Your task to perform on an android device: see sites visited before in the chrome app Image 0: 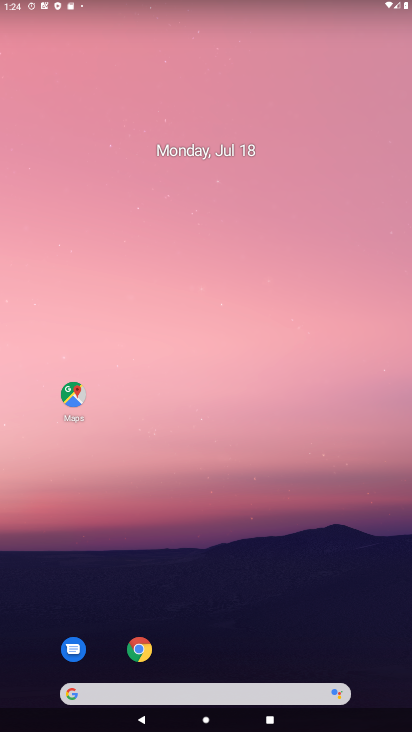
Step 0: click (150, 634)
Your task to perform on an android device: see sites visited before in the chrome app Image 1: 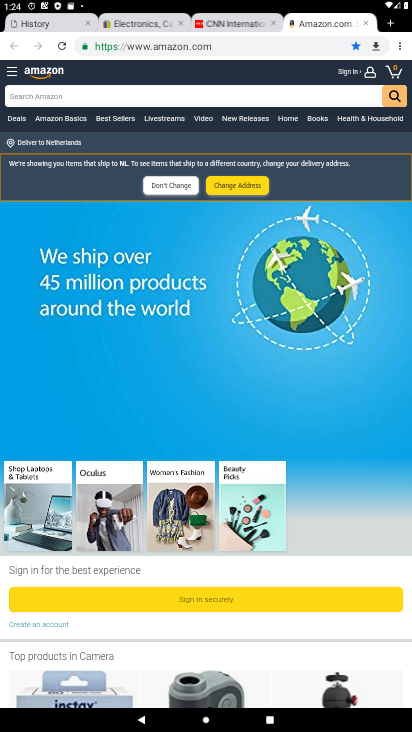
Step 1: click (246, 24)
Your task to perform on an android device: see sites visited before in the chrome app Image 2: 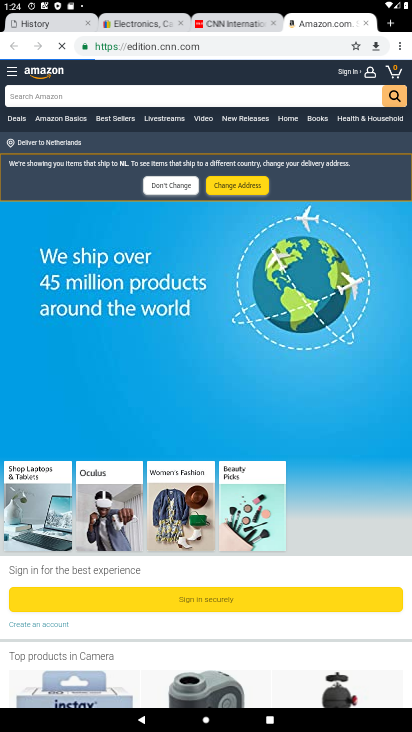
Step 2: click (146, 26)
Your task to perform on an android device: see sites visited before in the chrome app Image 3: 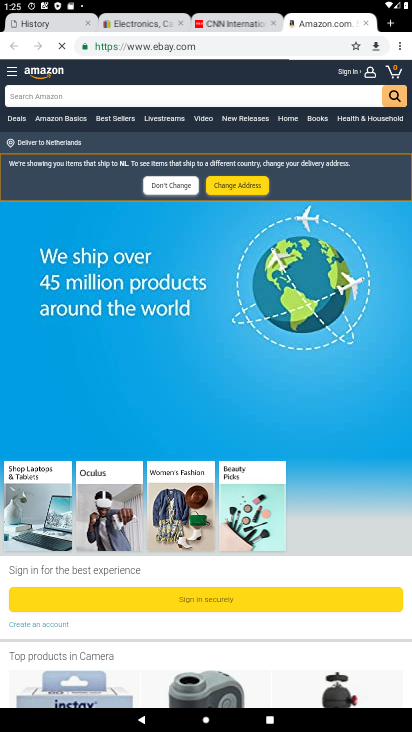
Step 3: click (210, 23)
Your task to perform on an android device: see sites visited before in the chrome app Image 4: 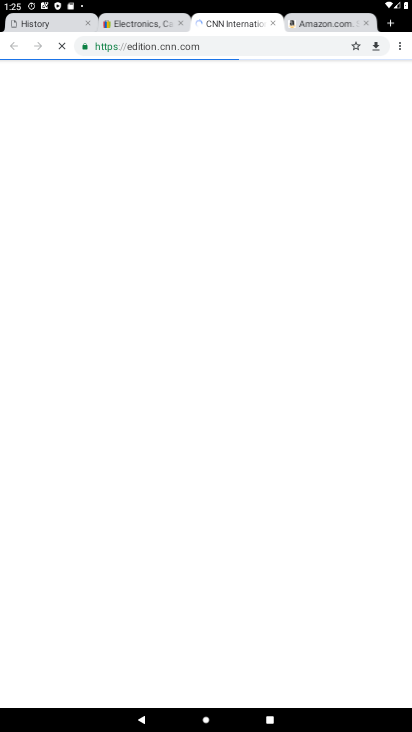
Step 4: click (210, 23)
Your task to perform on an android device: see sites visited before in the chrome app Image 5: 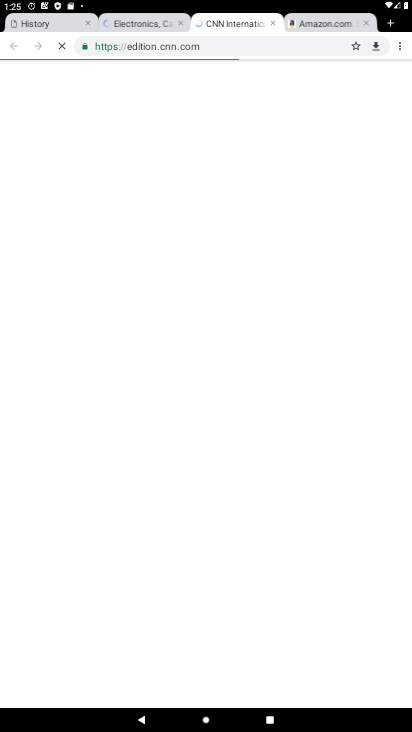
Step 5: click (141, 26)
Your task to perform on an android device: see sites visited before in the chrome app Image 6: 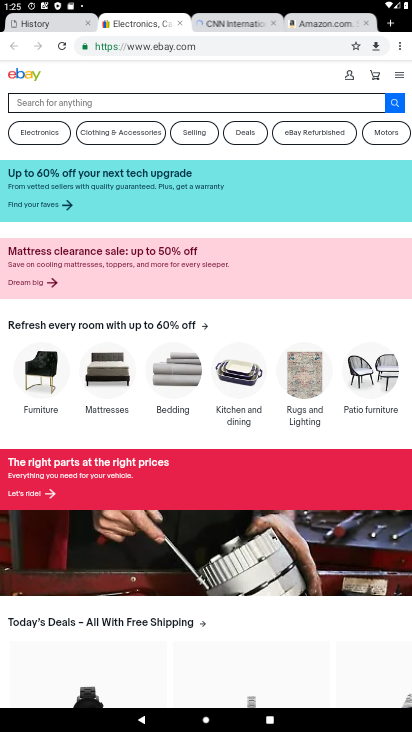
Step 6: click (141, 26)
Your task to perform on an android device: see sites visited before in the chrome app Image 7: 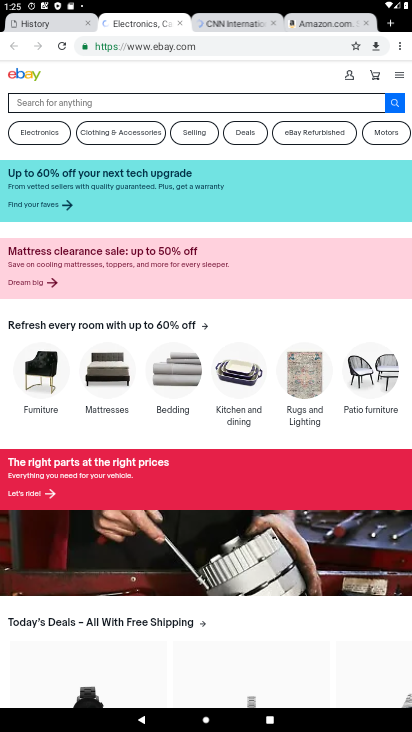
Step 7: click (36, 23)
Your task to perform on an android device: see sites visited before in the chrome app Image 8: 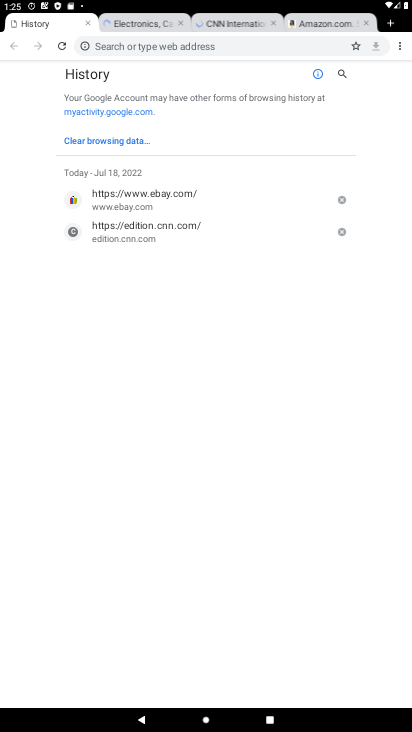
Step 8: task complete